Your task to perform on an android device: Search for "logitech g pro" on ebay.com, select the first entry, add it to the cart, then select checkout. Image 0: 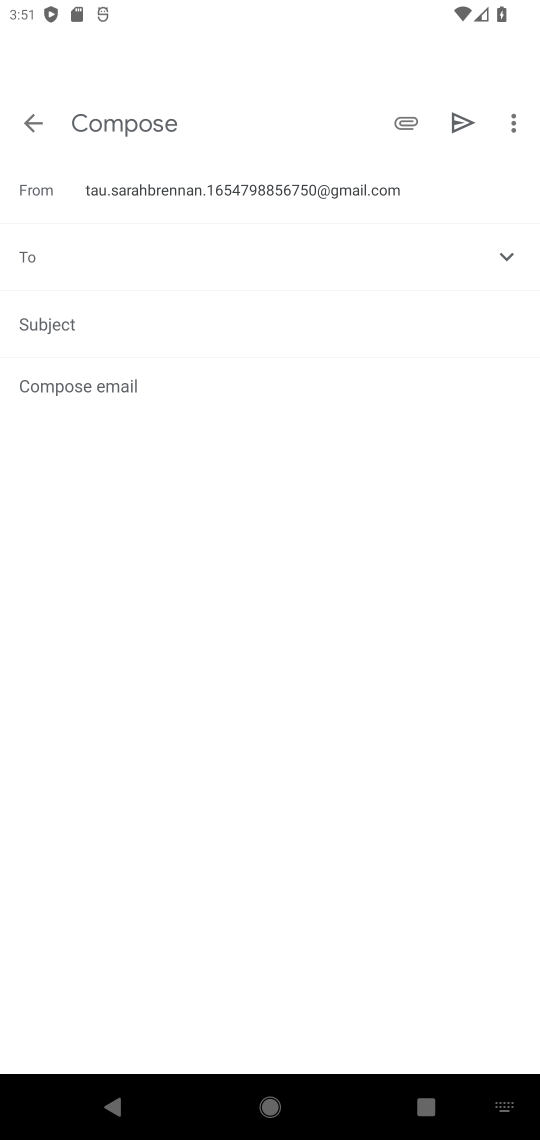
Step 0: press home button
Your task to perform on an android device: Search for "logitech g pro" on ebay.com, select the first entry, add it to the cart, then select checkout. Image 1: 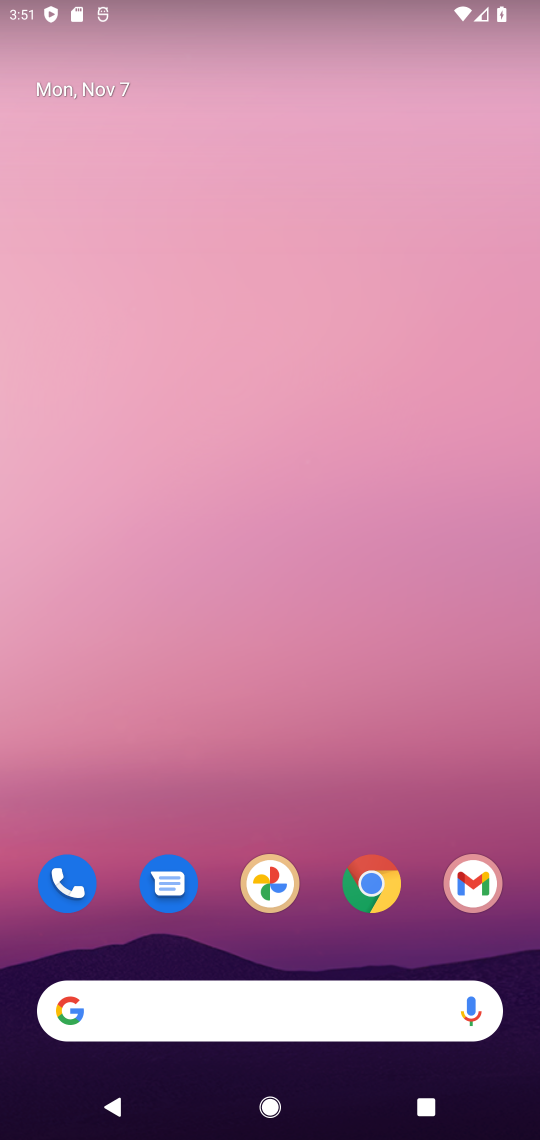
Step 1: click (377, 884)
Your task to perform on an android device: Search for "logitech g pro" on ebay.com, select the first entry, add it to the cart, then select checkout. Image 2: 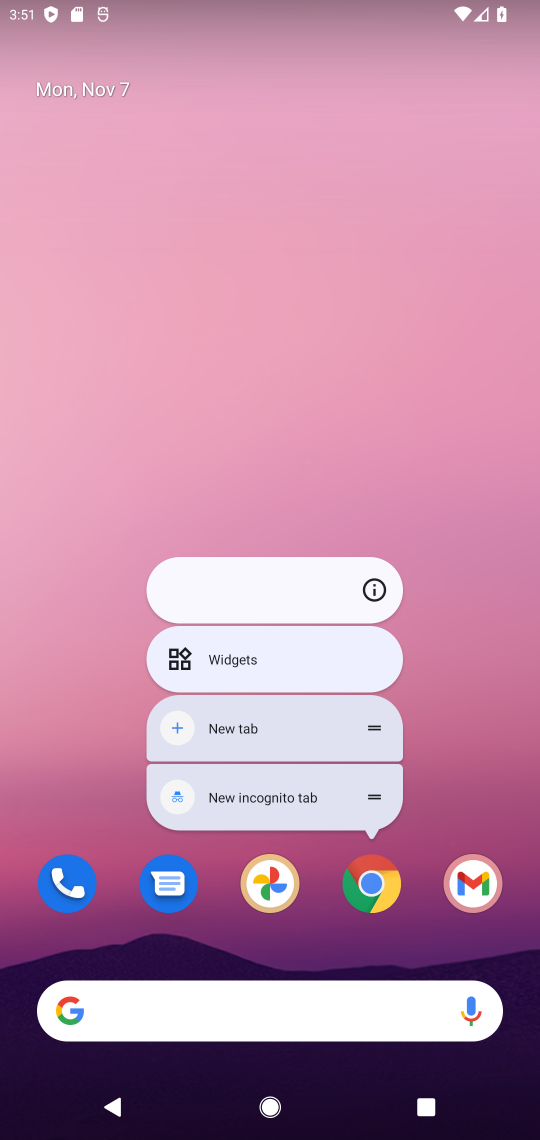
Step 2: click (368, 888)
Your task to perform on an android device: Search for "logitech g pro" on ebay.com, select the first entry, add it to the cart, then select checkout. Image 3: 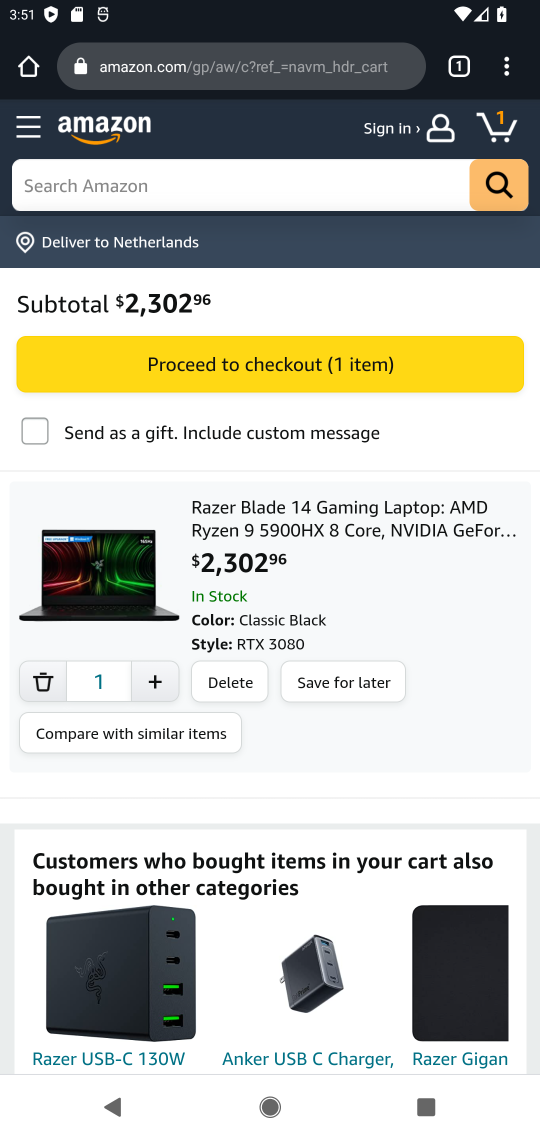
Step 3: click (242, 64)
Your task to perform on an android device: Search for "logitech g pro" on ebay.com, select the first entry, add it to the cart, then select checkout. Image 4: 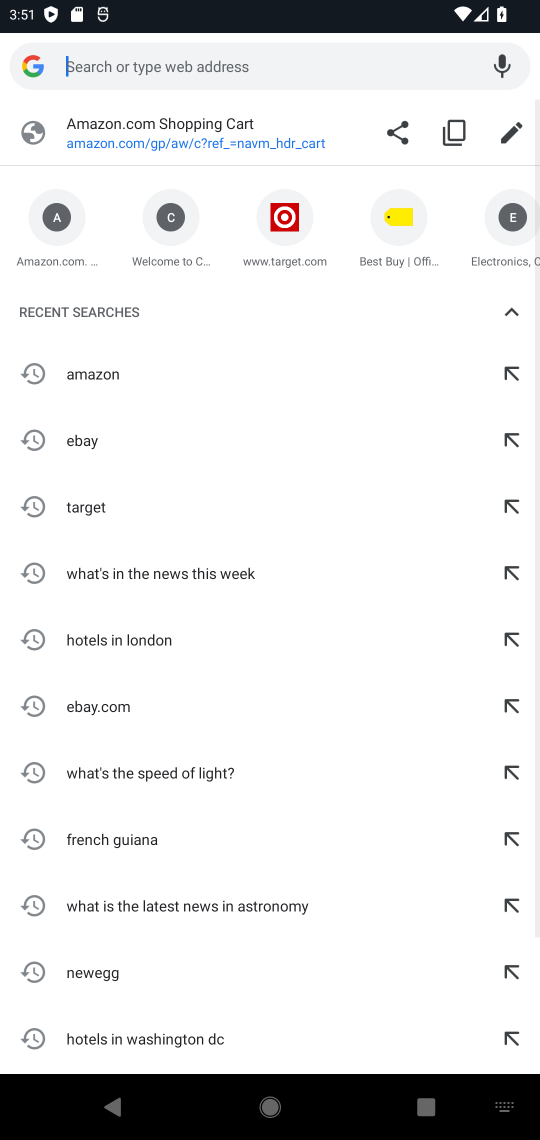
Step 4: click (84, 435)
Your task to perform on an android device: Search for "logitech g pro" on ebay.com, select the first entry, add it to the cart, then select checkout. Image 5: 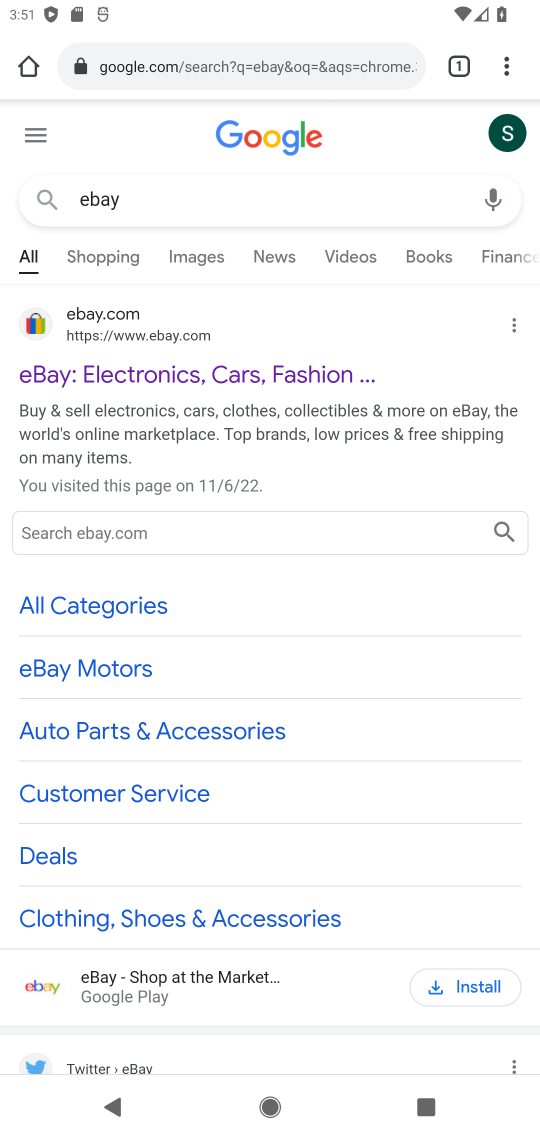
Step 5: click (201, 368)
Your task to perform on an android device: Search for "logitech g pro" on ebay.com, select the first entry, add it to the cart, then select checkout. Image 6: 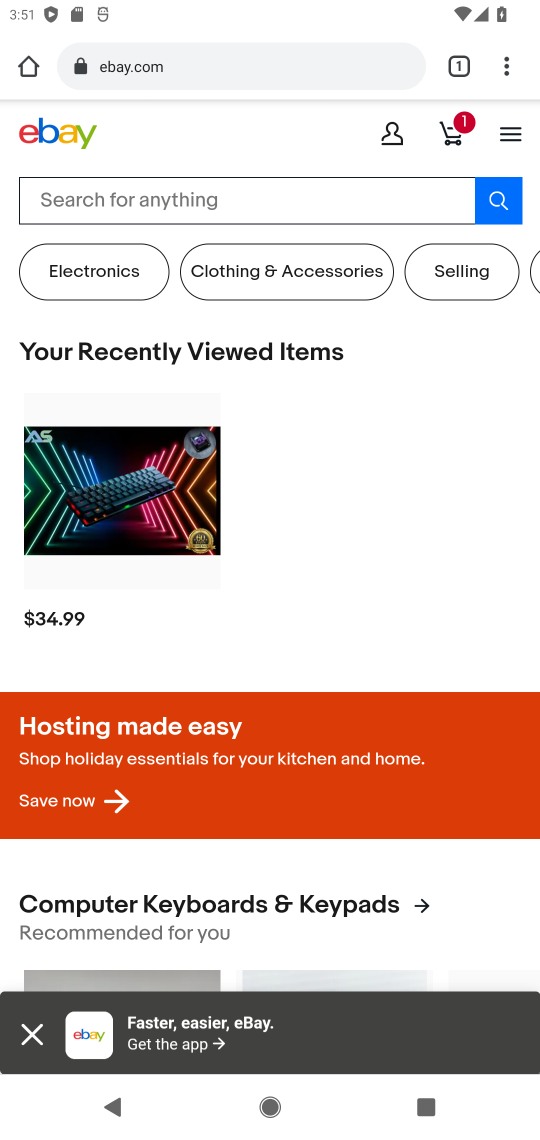
Step 6: type "logitech g pro"
Your task to perform on an android device: Search for "logitech g pro" on ebay.com, select the first entry, add it to the cart, then select checkout. Image 7: 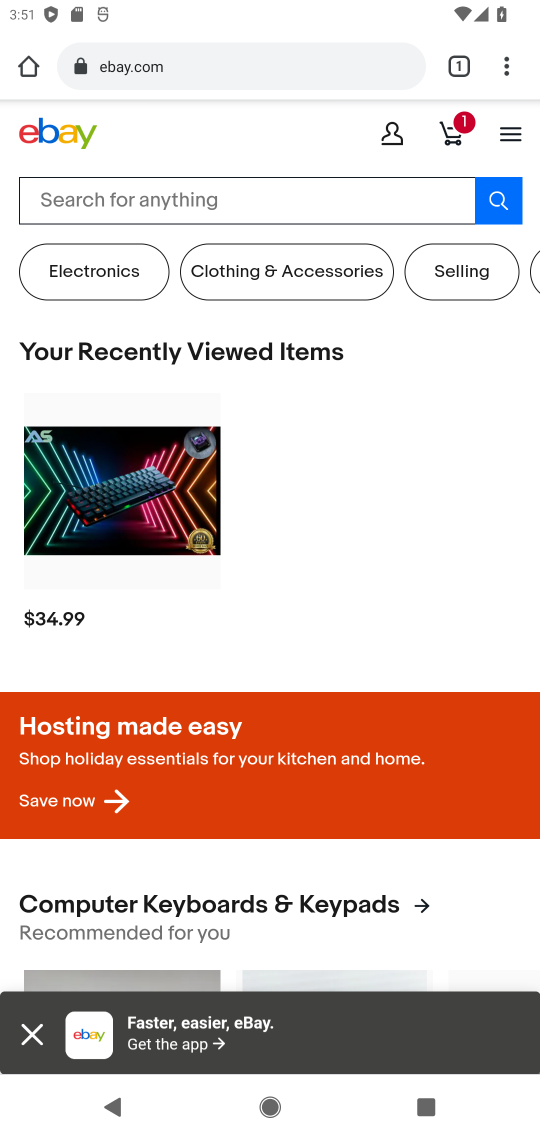
Step 7: press enter
Your task to perform on an android device: Search for "logitech g pro" on ebay.com, select the first entry, add it to the cart, then select checkout. Image 8: 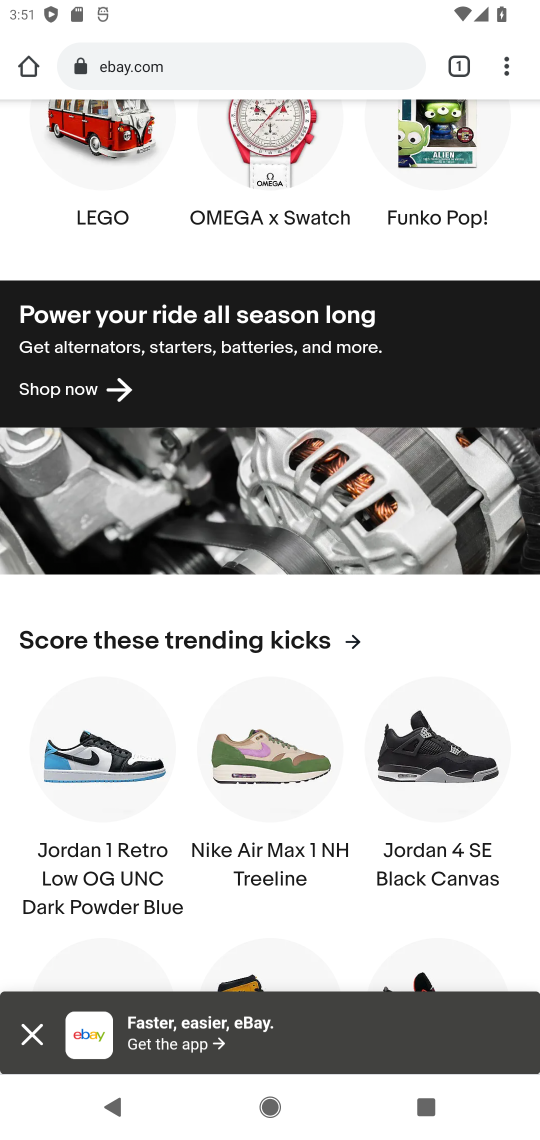
Step 8: drag from (284, 228) to (268, 822)
Your task to perform on an android device: Search for "logitech g pro" on ebay.com, select the first entry, add it to the cart, then select checkout. Image 9: 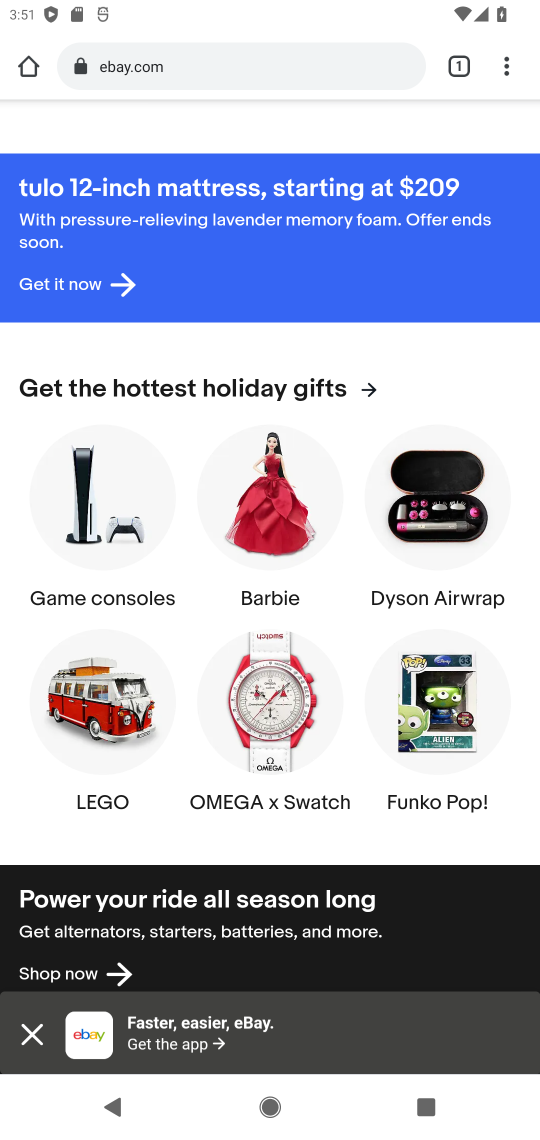
Step 9: drag from (192, 345) to (134, 921)
Your task to perform on an android device: Search for "logitech g pro" on ebay.com, select the first entry, add it to the cart, then select checkout. Image 10: 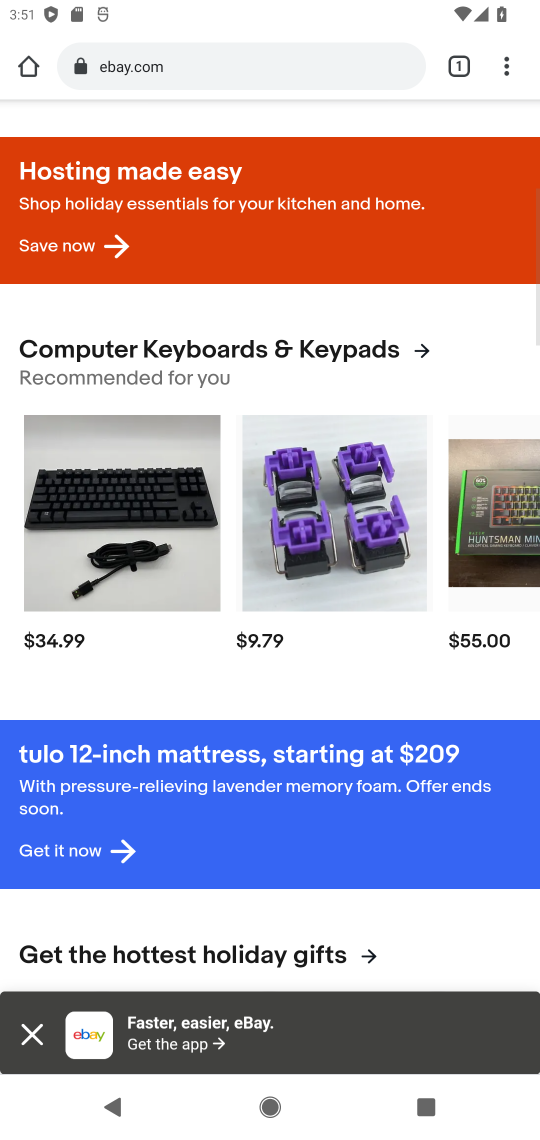
Step 10: drag from (308, 287) to (202, 772)
Your task to perform on an android device: Search for "logitech g pro" on ebay.com, select the first entry, add it to the cart, then select checkout. Image 11: 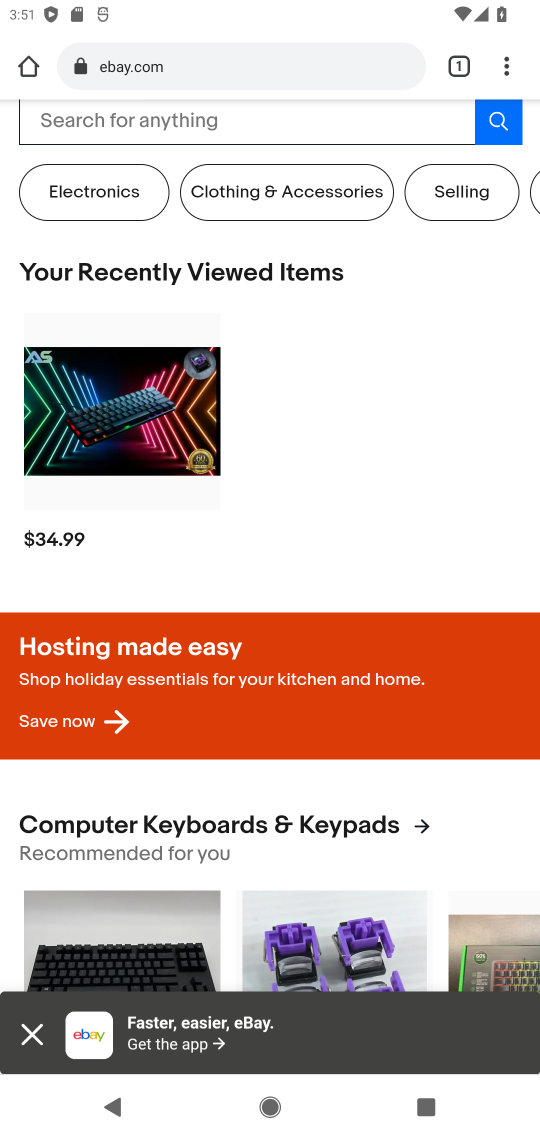
Step 11: drag from (293, 372) to (271, 661)
Your task to perform on an android device: Search for "logitech g pro" on ebay.com, select the first entry, add it to the cart, then select checkout. Image 12: 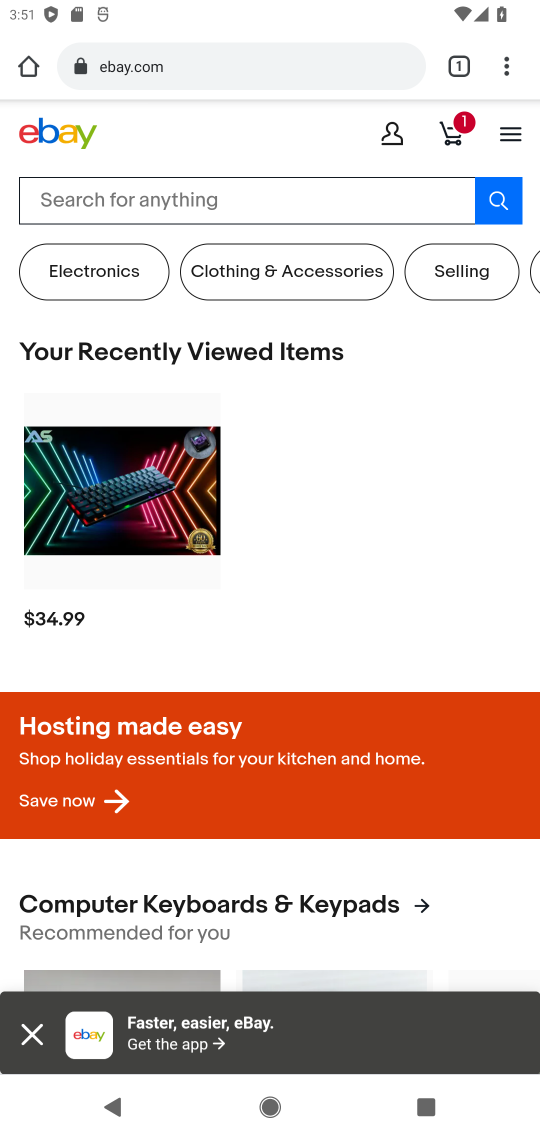
Step 12: click (162, 185)
Your task to perform on an android device: Search for "logitech g pro" on ebay.com, select the first entry, add it to the cart, then select checkout. Image 13: 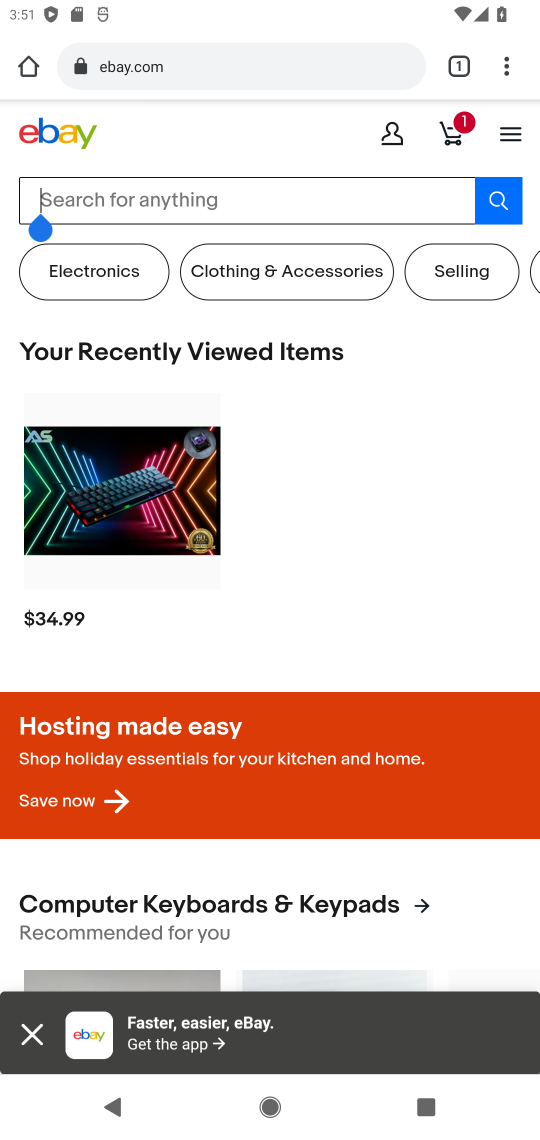
Step 13: click (156, 192)
Your task to perform on an android device: Search for "logitech g pro" on ebay.com, select the first entry, add it to the cart, then select checkout. Image 14: 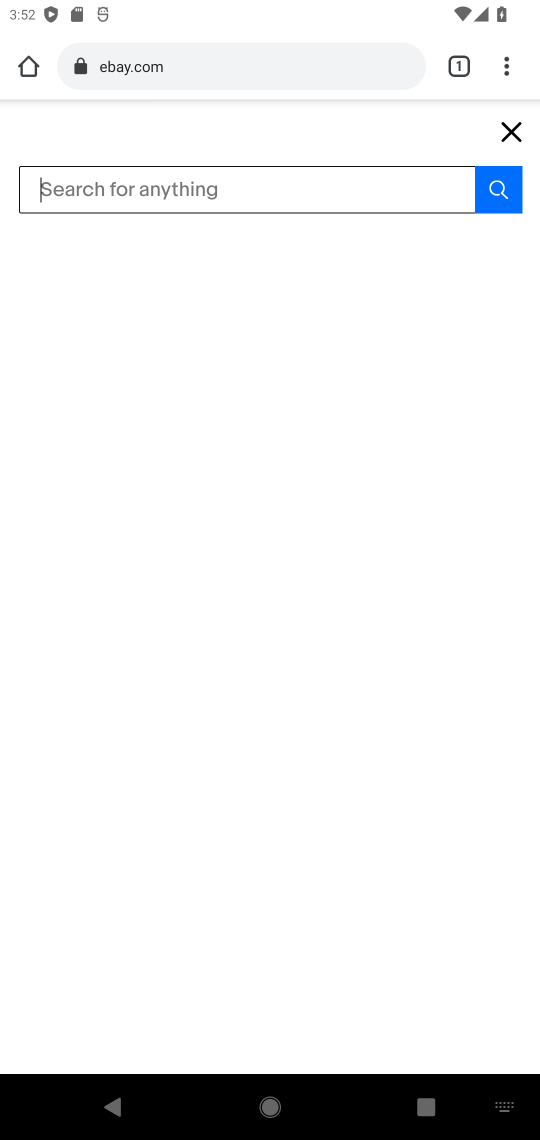
Step 14: type "logitech g pro"
Your task to perform on an android device: Search for "logitech g pro" on ebay.com, select the first entry, add it to the cart, then select checkout. Image 15: 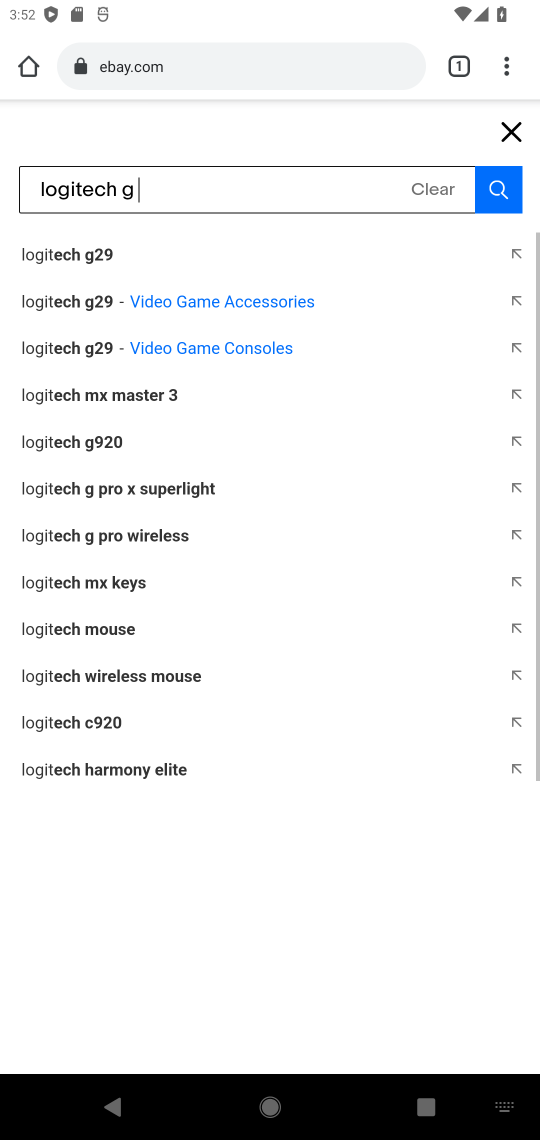
Step 15: press enter
Your task to perform on an android device: Search for "logitech g pro" on ebay.com, select the first entry, add it to the cart, then select checkout. Image 16: 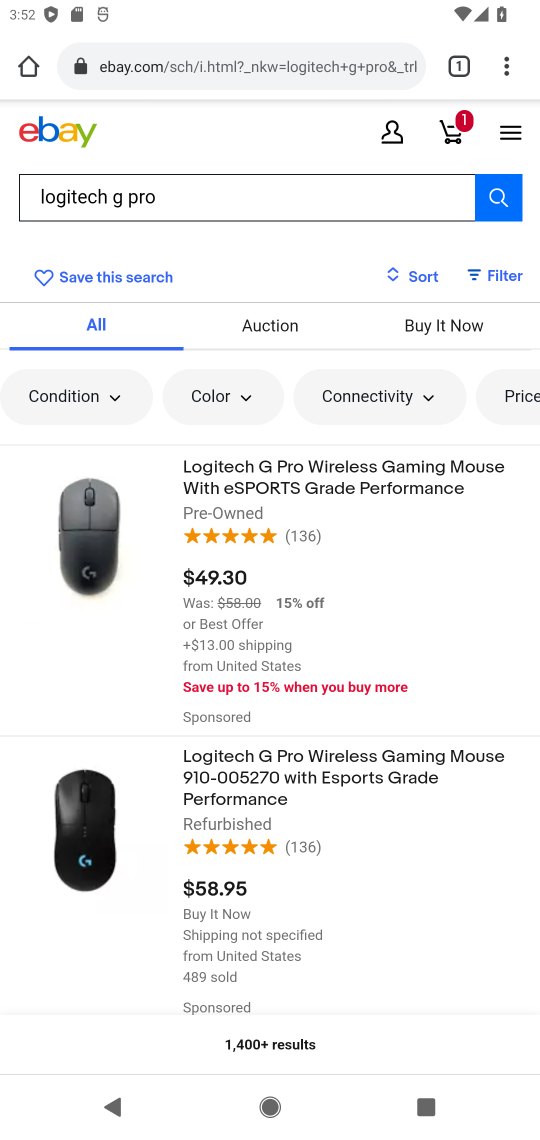
Step 16: click (355, 537)
Your task to perform on an android device: Search for "logitech g pro" on ebay.com, select the first entry, add it to the cart, then select checkout. Image 17: 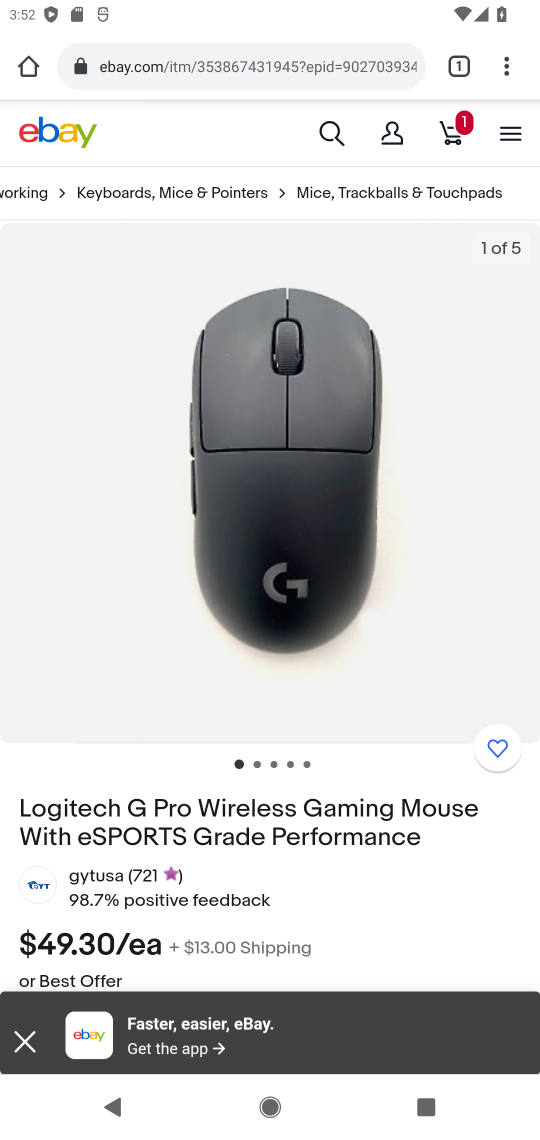
Step 17: drag from (344, 951) to (382, 324)
Your task to perform on an android device: Search for "logitech g pro" on ebay.com, select the first entry, add it to the cart, then select checkout. Image 18: 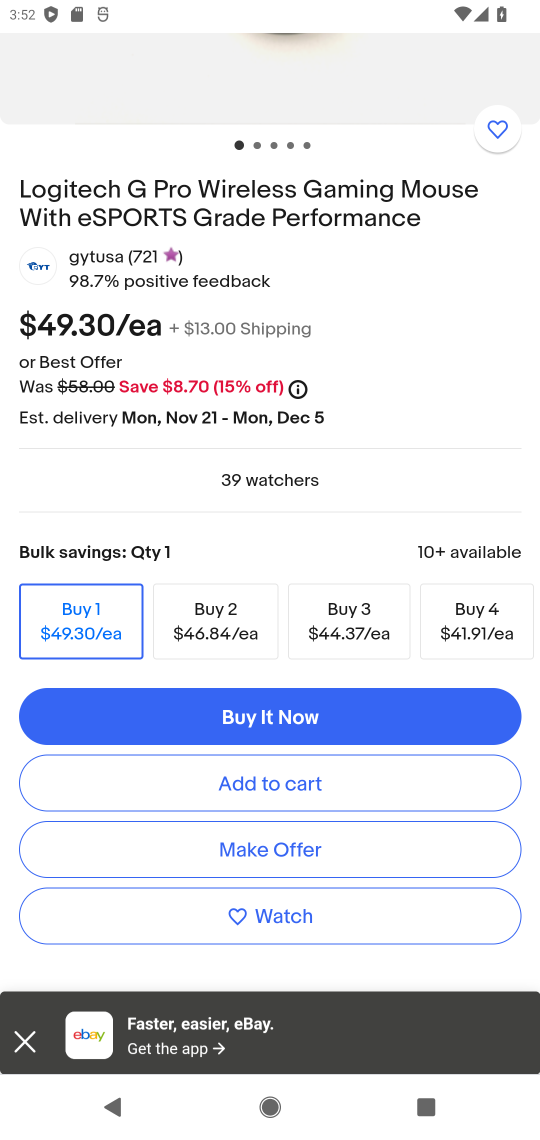
Step 18: click (297, 779)
Your task to perform on an android device: Search for "logitech g pro" on ebay.com, select the first entry, add it to the cart, then select checkout. Image 19: 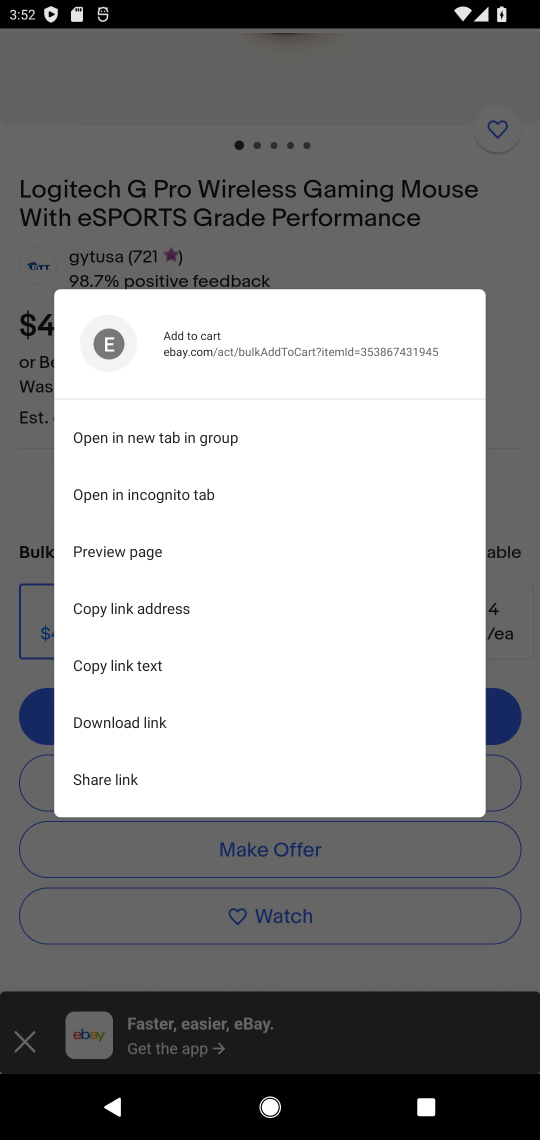
Step 19: click (506, 795)
Your task to perform on an android device: Search for "logitech g pro" on ebay.com, select the first entry, add it to the cart, then select checkout. Image 20: 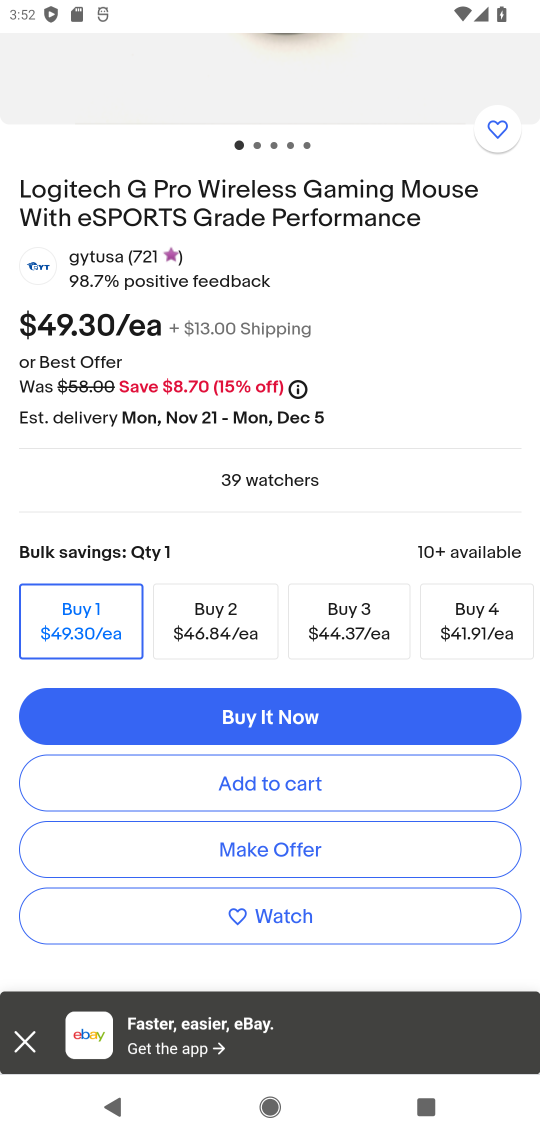
Step 20: click (246, 780)
Your task to perform on an android device: Search for "logitech g pro" on ebay.com, select the first entry, add it to the cart, then select checkout. Image 21: 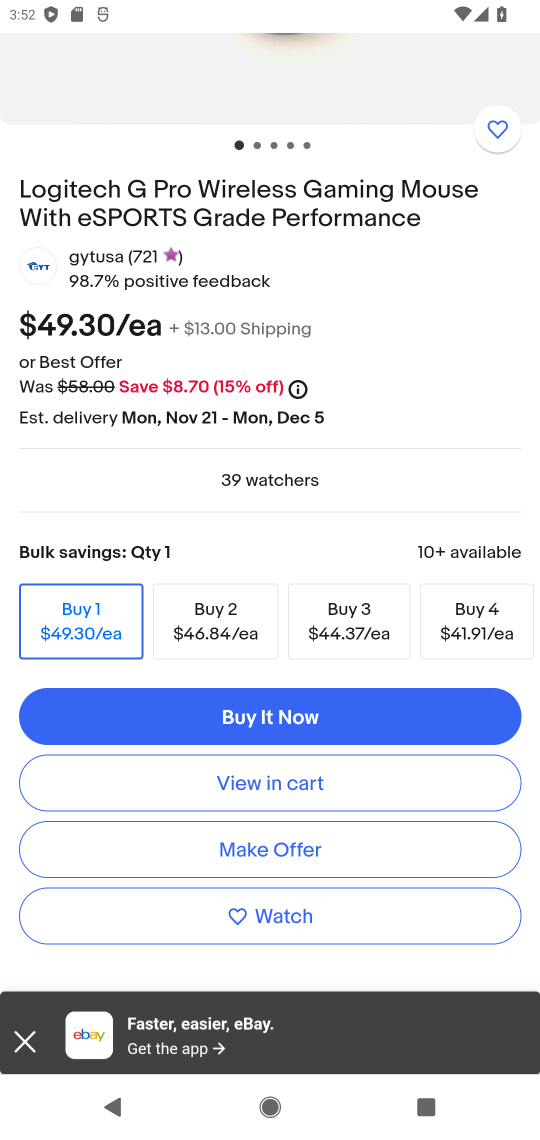
Step 21: click (259, 784)
Your task to perform on an android device: Search for "logitech g pro" on ebay.com, select the first entry, add it to the cart, then select checkout. Image 22: 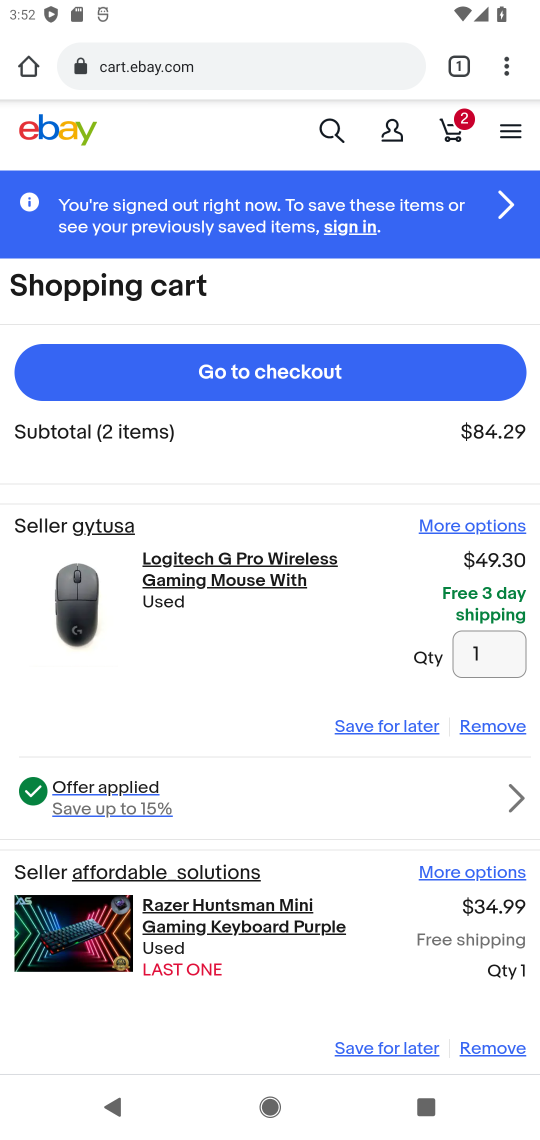
Step 22: drag from (295, 959) to (389, 671)
Your task to perform on an android device: Search for "logitech g pro" on ebay.com, select the first entry, add it to the cart, then select checkout. Image 23: 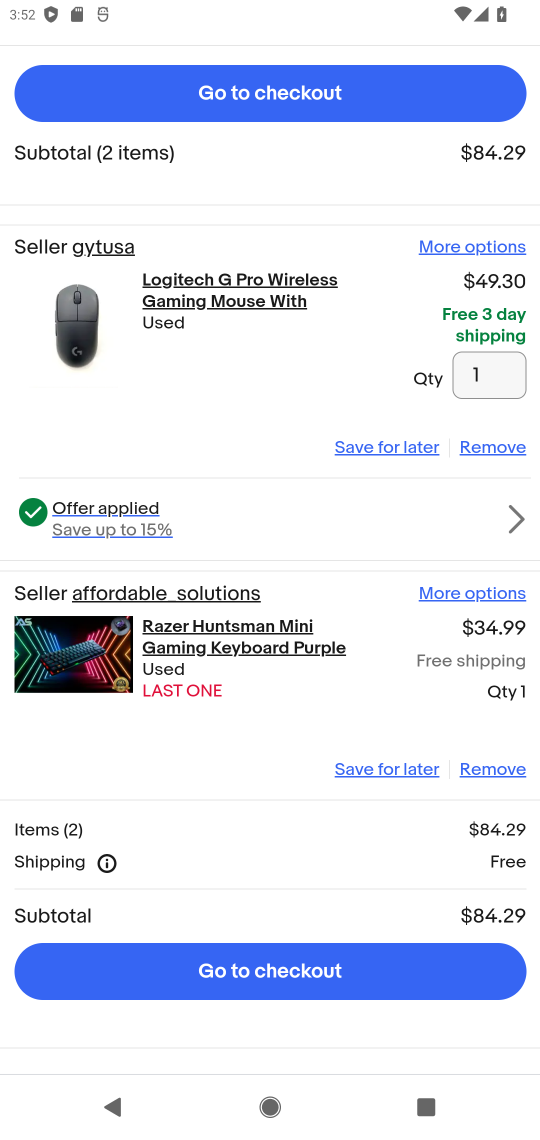
Step 23: drag from (277, 824) to (330, 612)
Your task to perform on an android device: Search for "logitech g pro" on ebay.com, select the first entry, add it to the cart, then select checkout. Image 24: 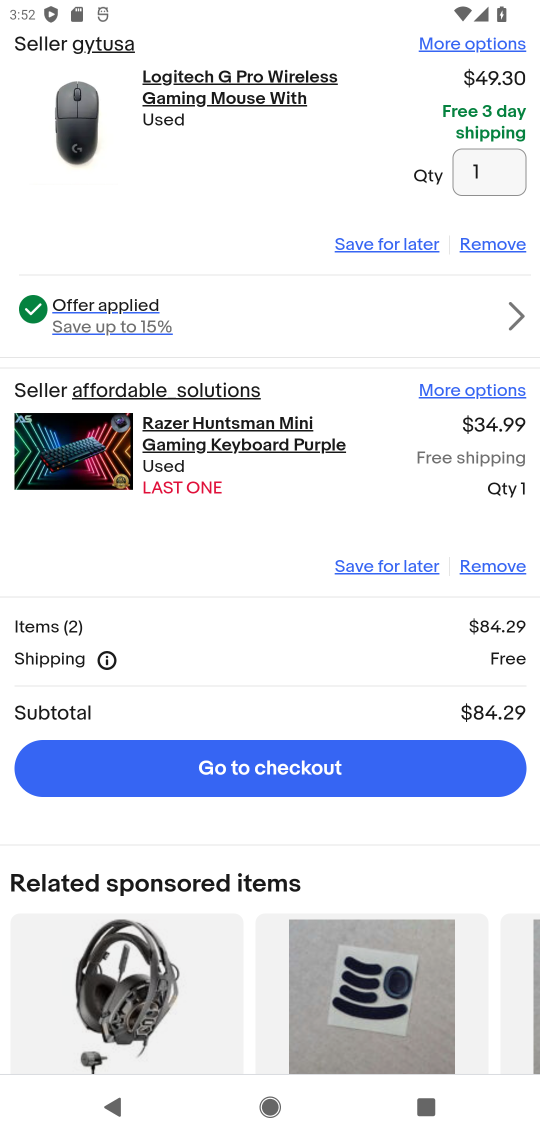
Step 24: drag from (257, 495) to (238, 644)
Your task to perform on an android device: Search for "logitech g pro" on ebay.com, select the first entry, add it to the cart, then select checkout. Image 25: 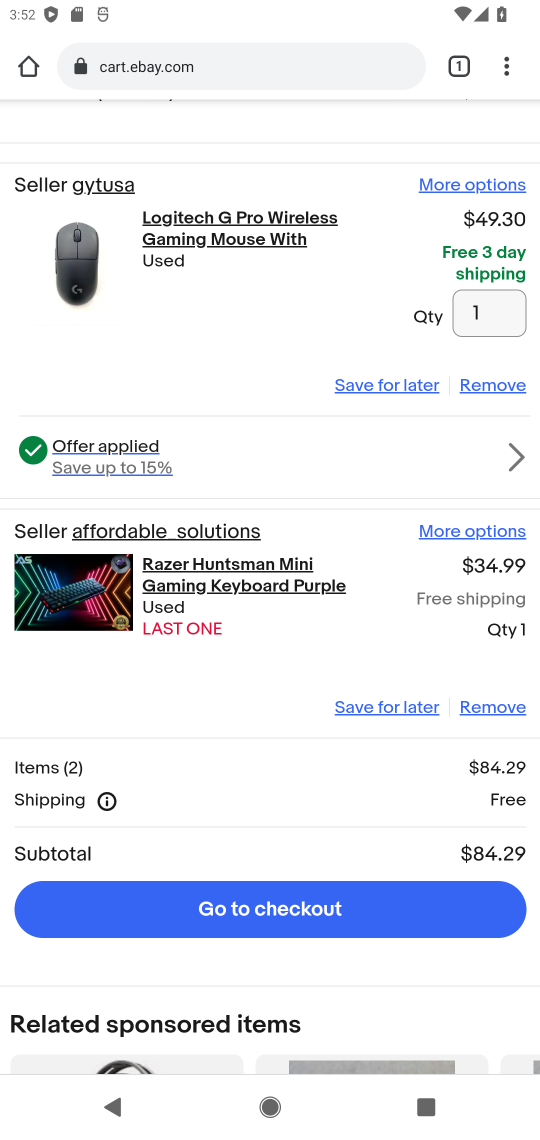
Step 25: click (501, 700)
Your task to perform on an android device: Search for "logitech g pro" on ebay.com, select the first entry, add it to the cart, then select checkout. Image 26: 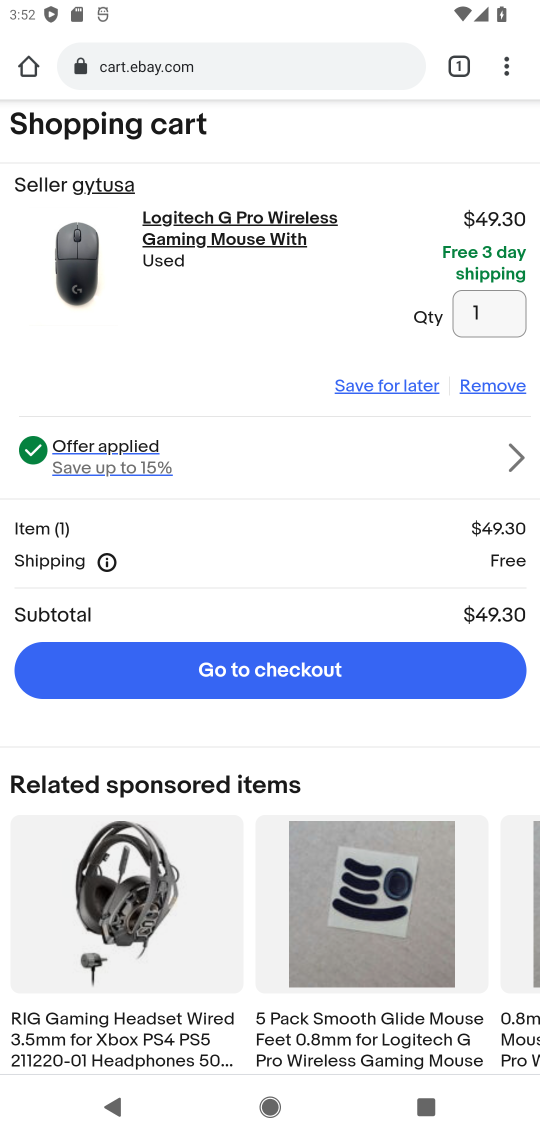
Step 26: drag from (248, 467) to (286, 913)
Your task to perform on an android device: Search for "logitech g pro" on ebay.com, select the first entry, add it to the cart, then select checkout. Image 27: 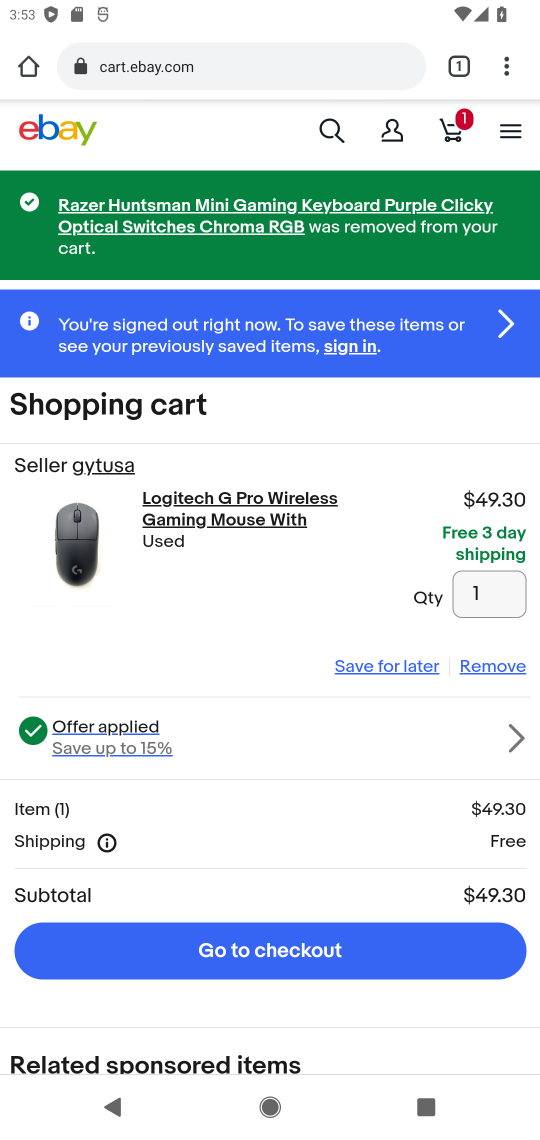
Step 27: click (294, 951)
Your task to perform on an android device: Search for "logitech g pro" on ebay.com, select the first entry, add it to the cart, then select checkout. Image 28: 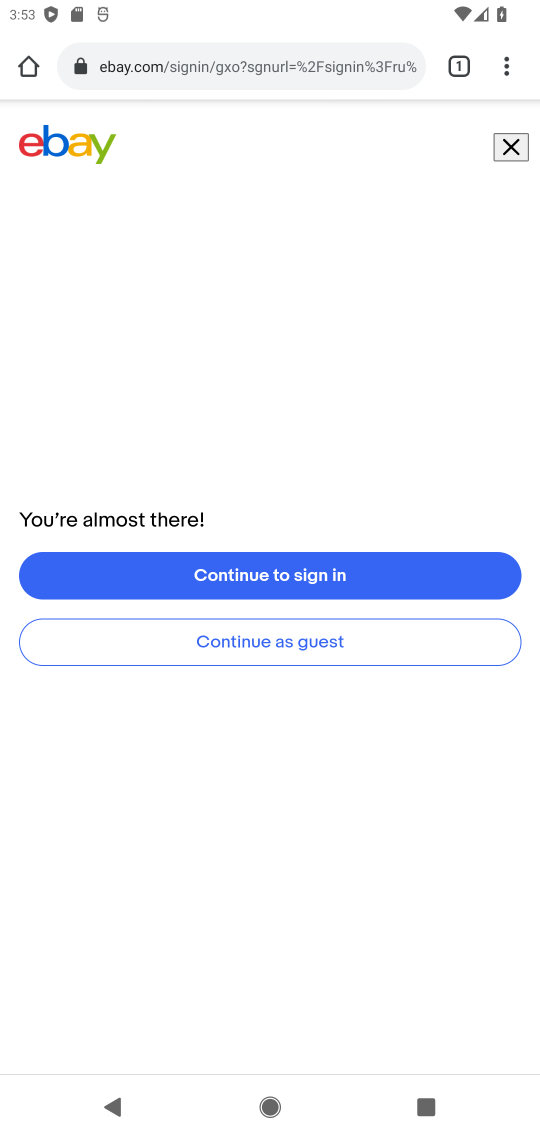
Step 28: task complete